Your task to perform on an android device: turn on the 24-hour format for clock Image 0: 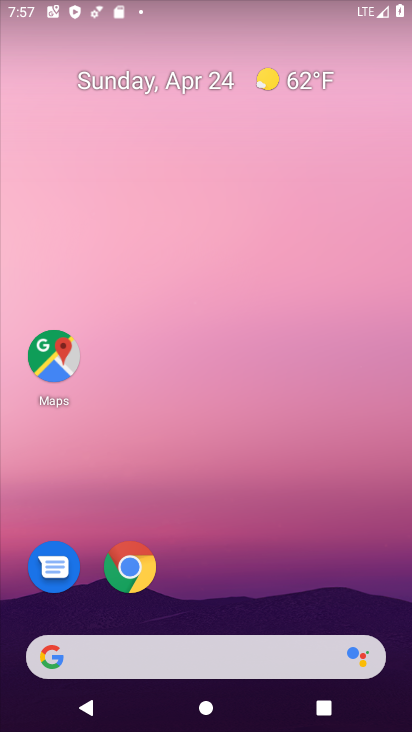
Step 0: drag from (259, 595) to (231, 72)
Your task to perform on an android device: turn on the 24-hour format for clock Image 1: 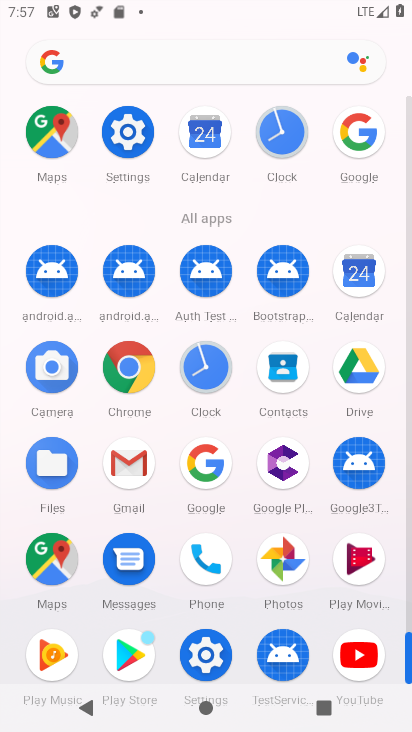
Step 1: click (282, 134)
Your task to perform on an android device: turn on the 24-hour format for clock Image 2: 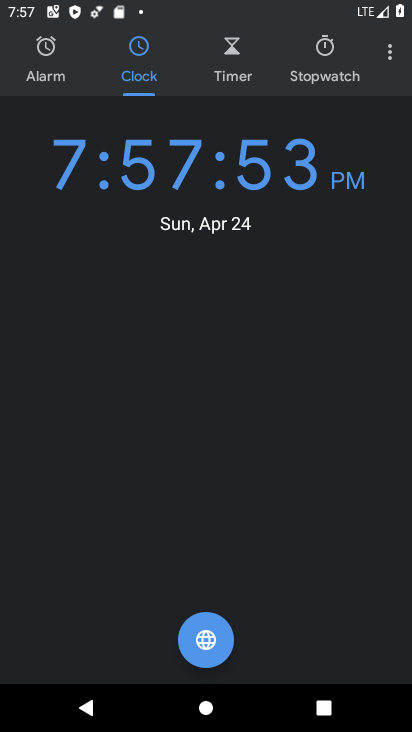
Step 2: click (394, 52)
Your task to perform on an android device: turn on the 24-hour format for clock Image 3: 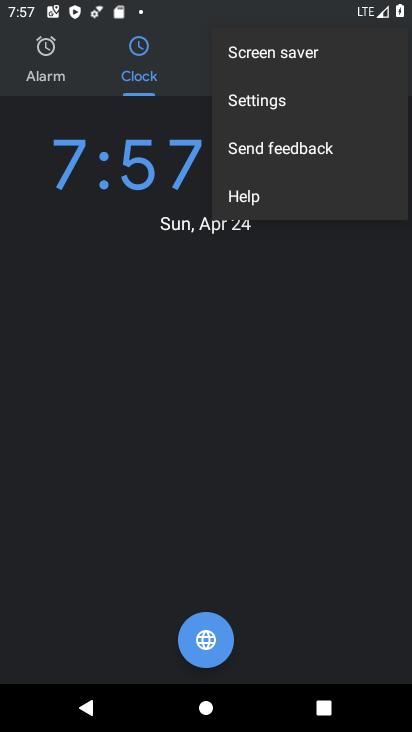
Step 3: click (276, 99)
Your task to perform on an android device: turn on the 24-hour format for clock Image 4: 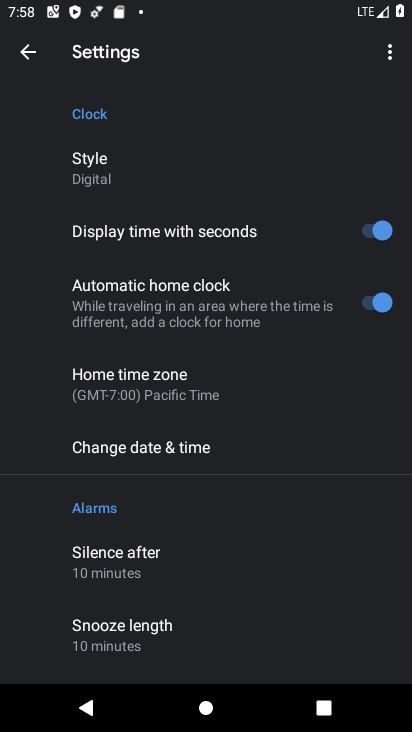
Step 4: click (173, 457)
Your task to perform on an android device: turn on the 24-hour format for clock Image 5: 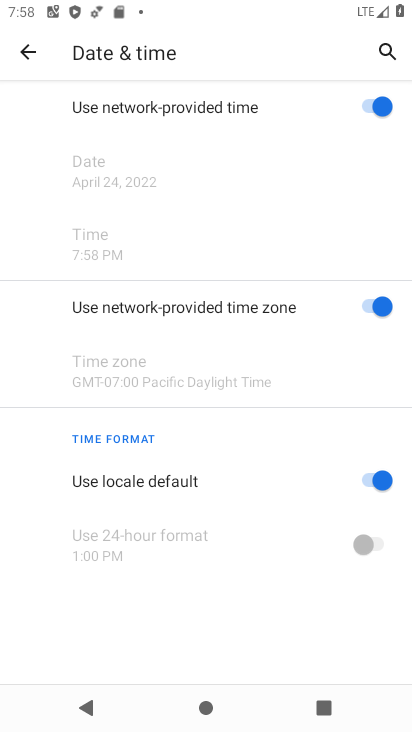
Step 5: click (385, 484)
Your task to perform on an android device: turn on the 24-hour format for clock Image 6: 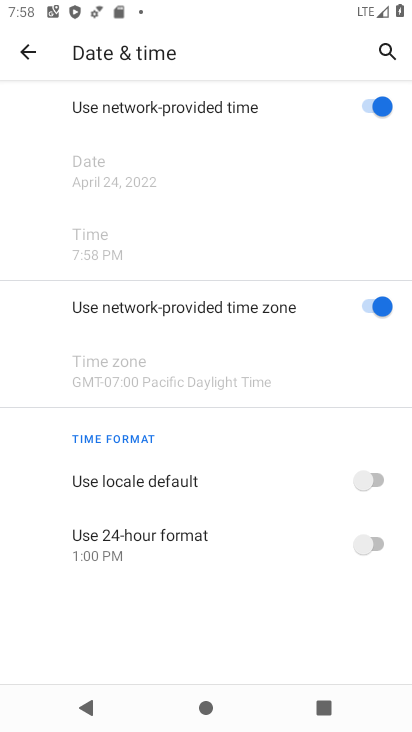
Step 6: click (365, 544)
Your task to perform on an android device: turn on the 24-hour format for clock Image 7: 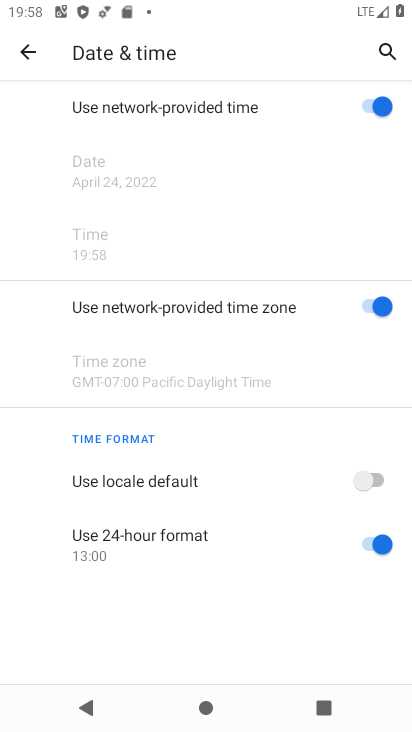
Step 7: task complete